Your task to perform on an android device: Go to Android settings Image 0: 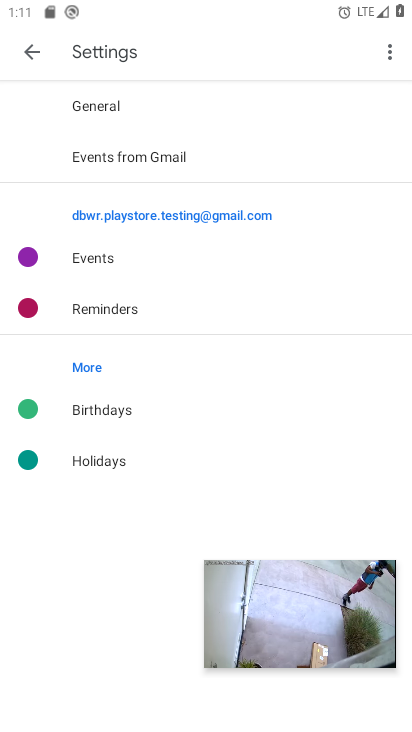
Step 0: press home button
Your task to perform on an android device: Go to Android settings Image 1: 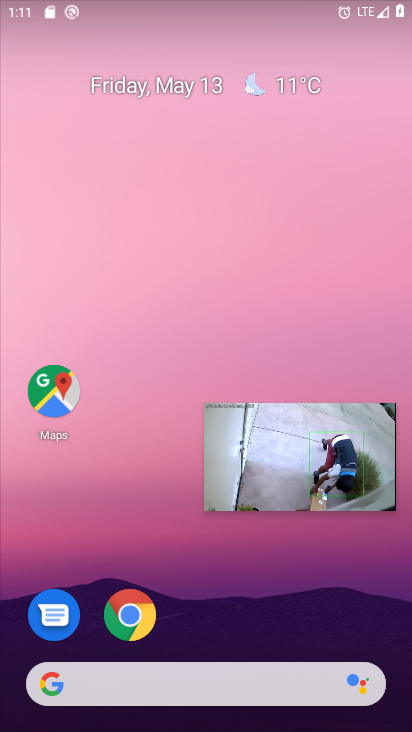
Step 1: drag from (114, 530) to (183, 175)
Your task to perform on an android device: Go to Android settings Image 2: 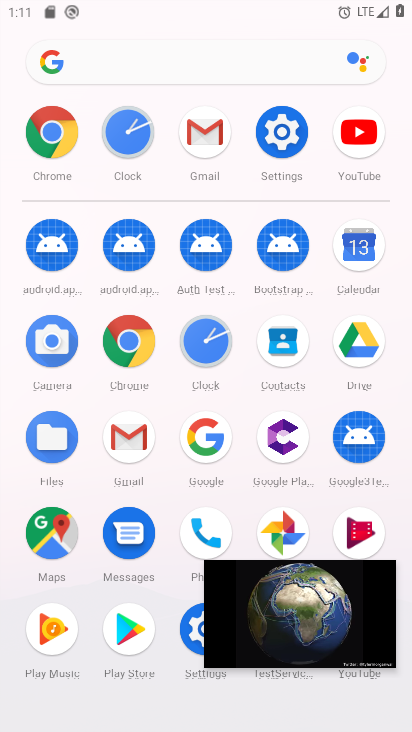
Step 2: click (283, 134)
Your task to perform on an android device: Go to Android settings Image 3: 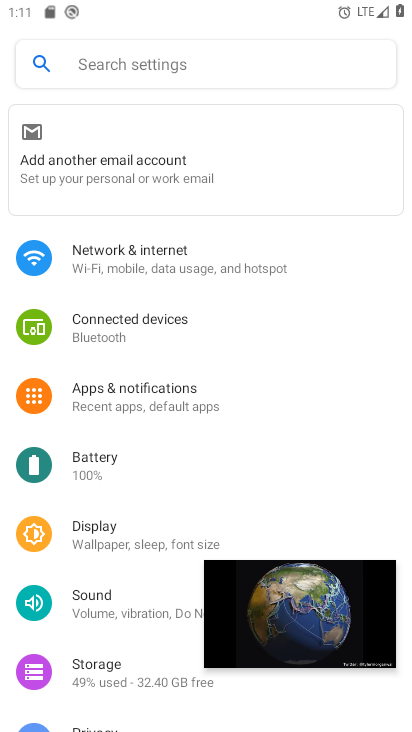
Step 3: drag from (122, 527) to (148, 77)
Your task to perform on an android device: Go to Android settings Image 4: 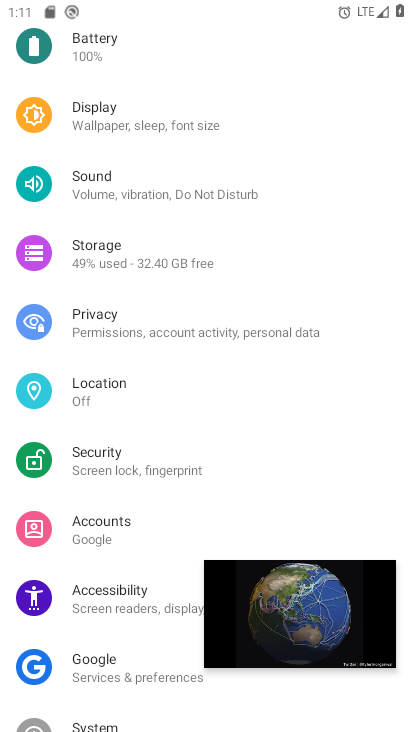
Step 4: drag from (105, 567) to (139, 387)
Your task to perform on an android device: Go to Android settings Image 5: 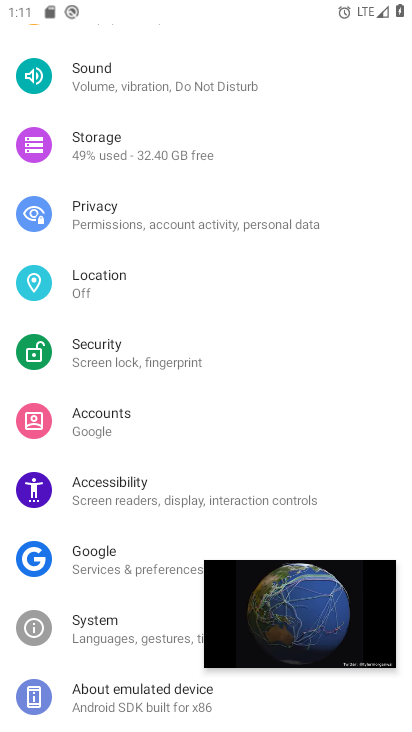
Step 5: click (109, 690)
Your task to perform on an android device: Go to Android settings Image 6: 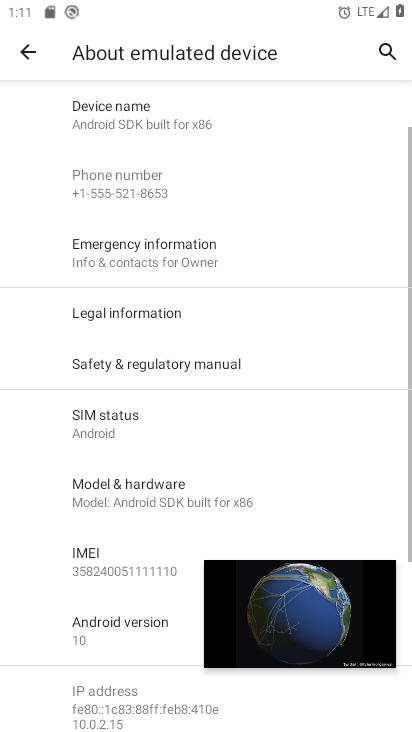
Step 6: task complete